Your task to perform on an android device: open chrome privacy settings Image 0: 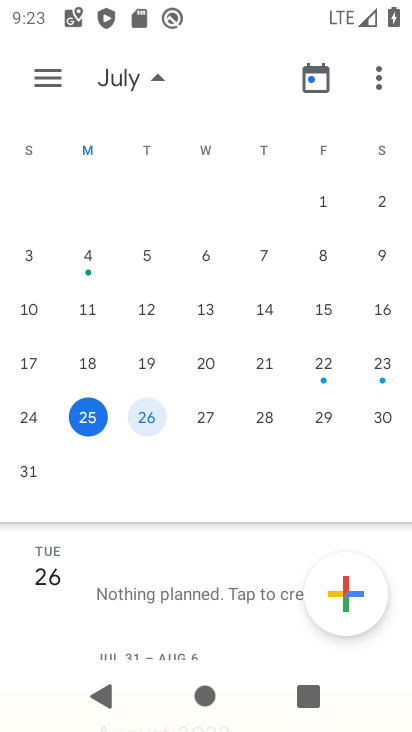
Step 0: press back button
Your task to perform on an android device: open chrome privacy settings Image 1: 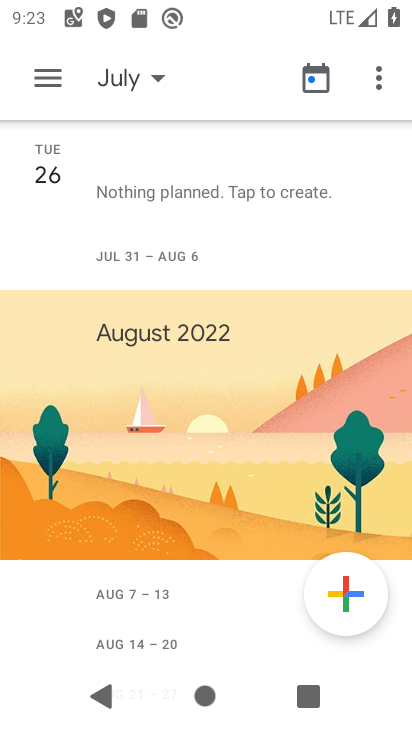
Step 1: press back button
Your task to perform on an android device: open chrome privacy settings Image 2: 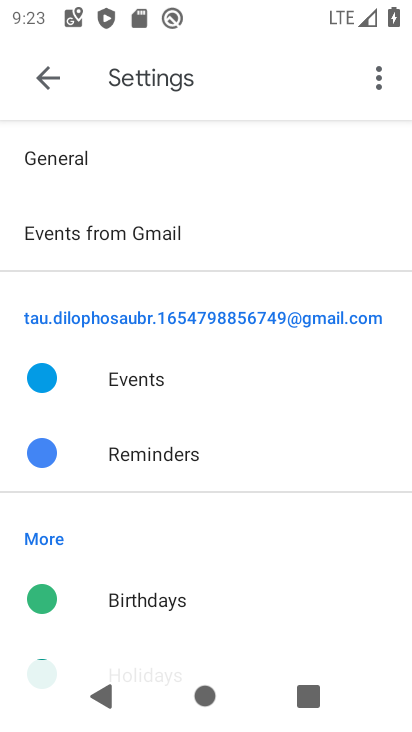
Step 2: press back button
Your task to perform on an android device: open chrome privacy settings Image 3: 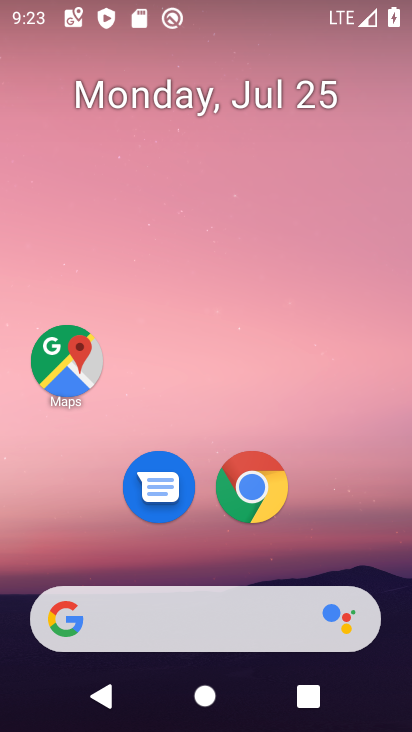
Step 3: click (258, 484)
Your task to perform on an android device: open chrome privacy settings Image 4: 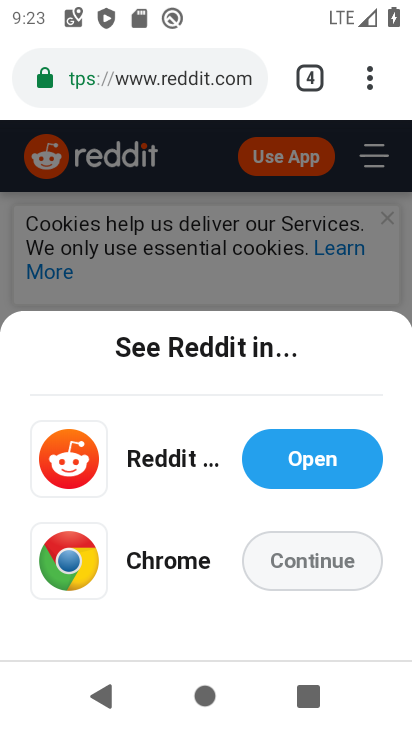
Step 4: drag from (367, 76) to (97, 544)
Your task to perform on an android device: open chrome privacy settings Image 5: 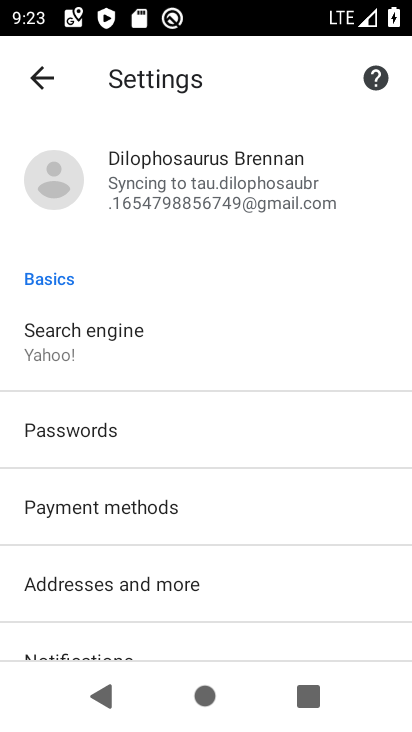
Step 5: drag from (113, 578) to (307, 55)
Your task to perform on an android device: open chrome privacy settings Image 6: 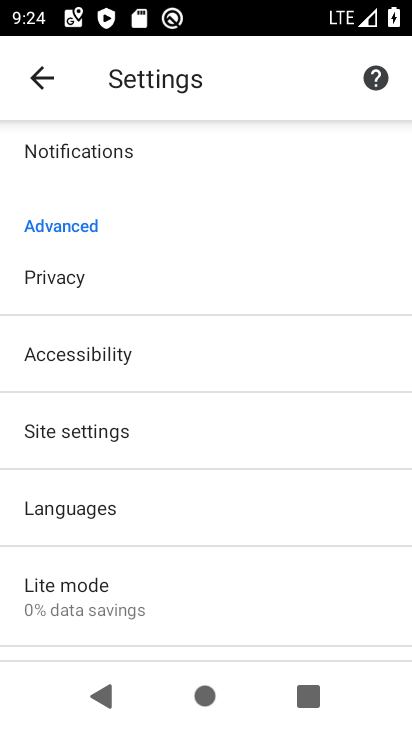
Step 6: drag from (124, 595) to (247, 197)
Your task to perform on an android device: open chrome privacy settings Image 7: 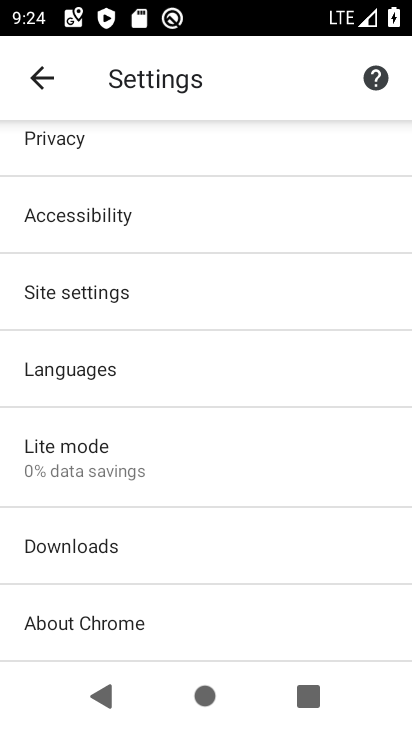
Step 7: drag from (173, 280) to (168, 536)
Your task to perform on an android device: open chrome privacy settings Image 8: 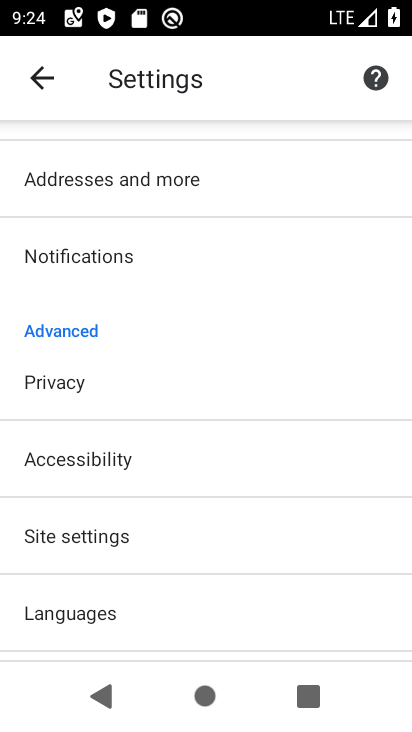
Step 8: click (71, 376)
Your task to perform on an android device: open chrome privacy settings Image 9: 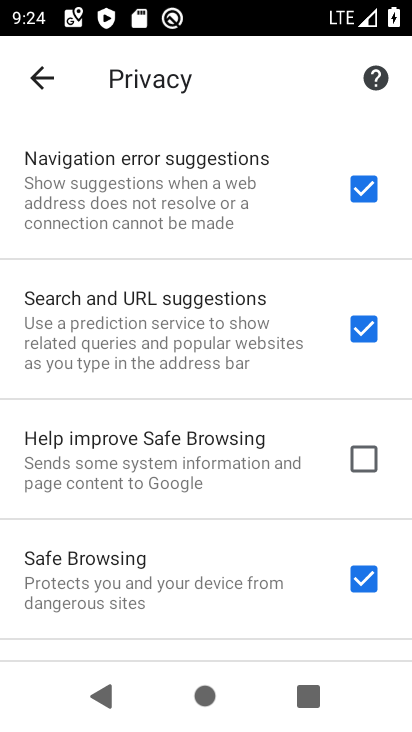
Step 9: task complete